Your task to perform on an android device: turn on bluetooth scan Image 0: 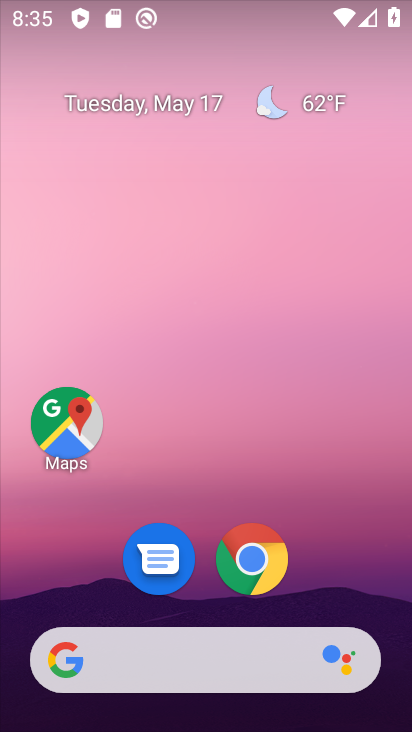
Step 0: drag from (222, 663) to (221, 220)
Your task to perform on an android device: turn on bluetooth scan Image 1: 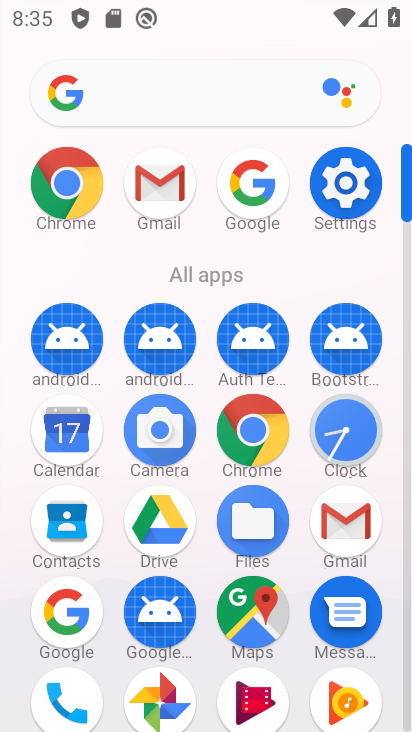
Step 1: click (321, 202)
Your task to perform on an android device: turn on bluetooth scan Image 2: 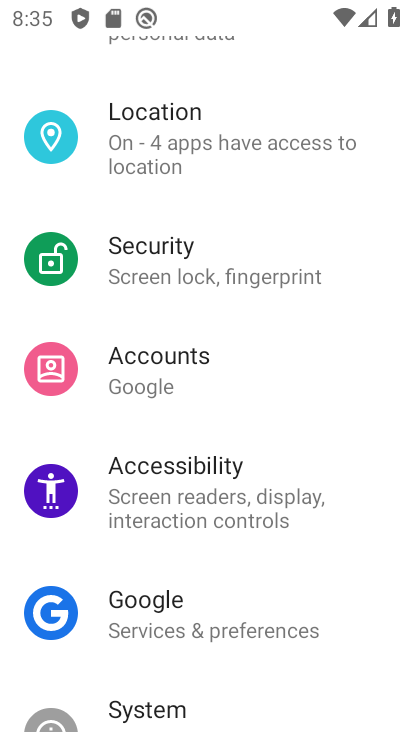
Step 2: click (146, 162)
Your task to perform on an android device: turn on bluetooth scan Image 3: 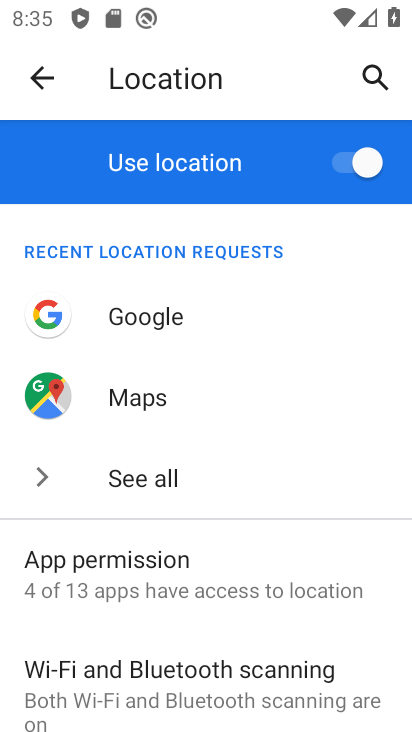
Step 3: drag from (188, 609) to (167, 192)
Your task to perform on an android device: turn on bluetooth scan Image 4: 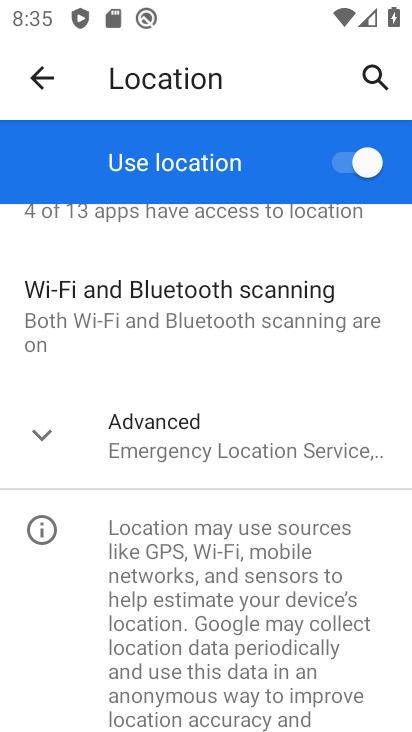
Step 4: click (151, 315)
Your task to perform on an android device: turn on bluetooth scan Image 5: 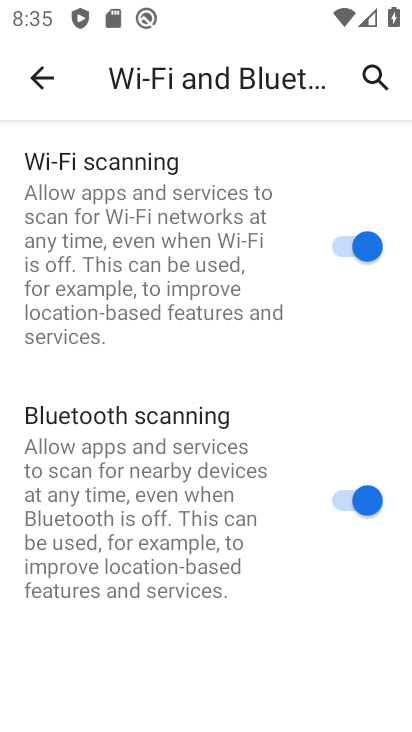
Step 5: task complete